Your task to perform on an android device: Open Android settings Image 0: 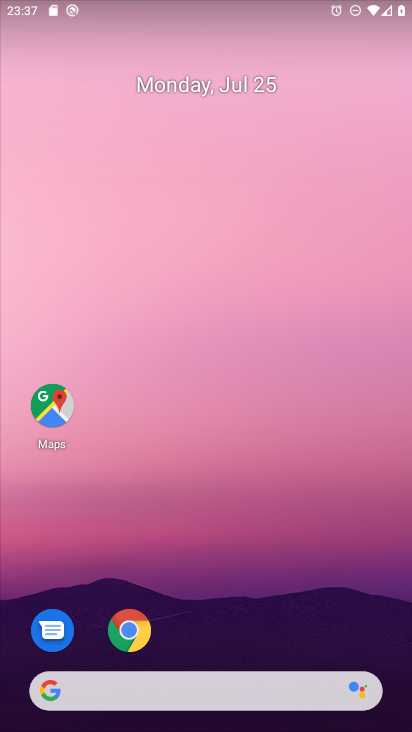
Step 0: drag from (327, 620) to (262, 72)
Your task to perform on an android device: Open Android settings Image 1: 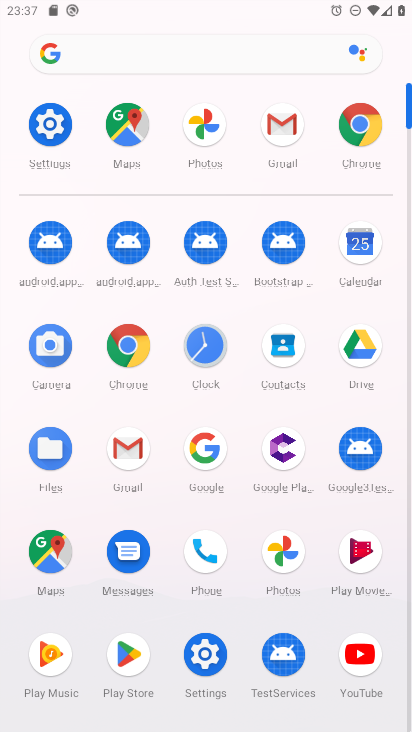
Step 1: click (59, 125)
Your task to perform on an android device: Open Android settings Image 2: 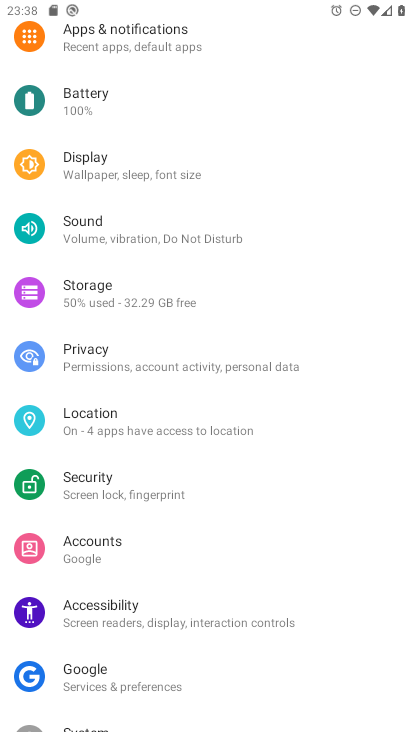
Step 2: task complete